Your task to perform on an android device: read, delete, or share a saved page in the chrome app Image 0: 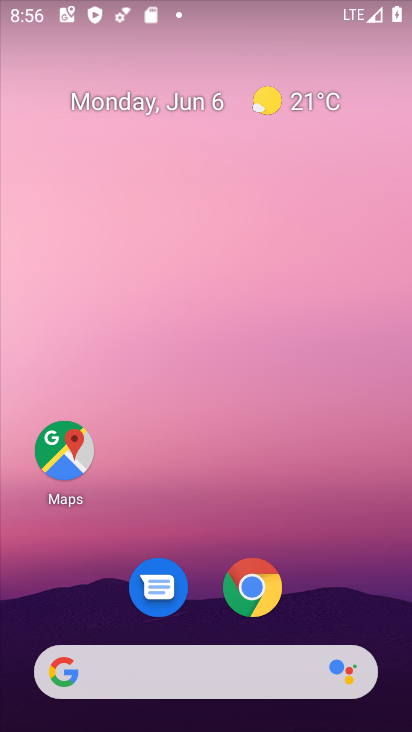
Step 0: click (249, 583)
Your task to perform on an android device: read, delete, or share a saved page in the chrome app Image 1: 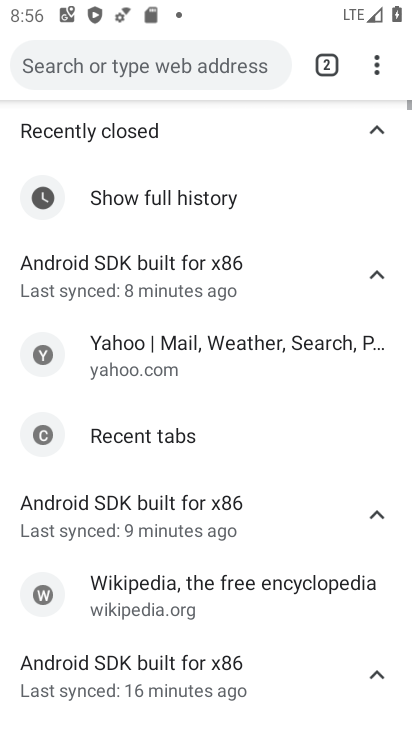
Step 1: click (386, 68)
Your task to perform on an android device: read, delete, or share a saved page in the chrome app Image 2: 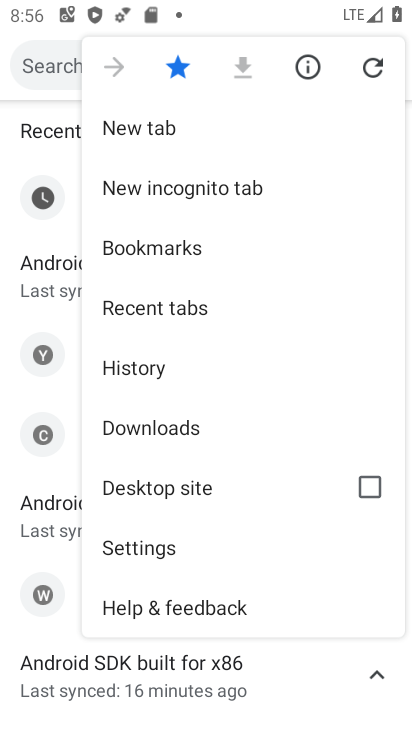
Step 2: click (204, 432)
Your task to perform on an android device: read, delete, or share a saved page in the chrome app Image 3: 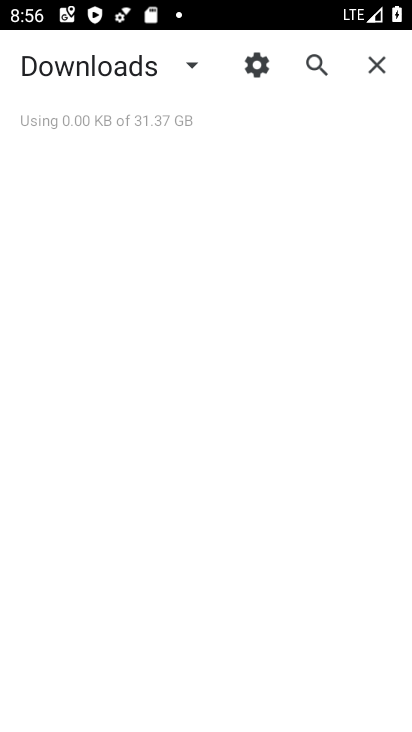
Step 3: task complete